Your task to perform on an android device: delete browsing data in the chrome app Image 0: 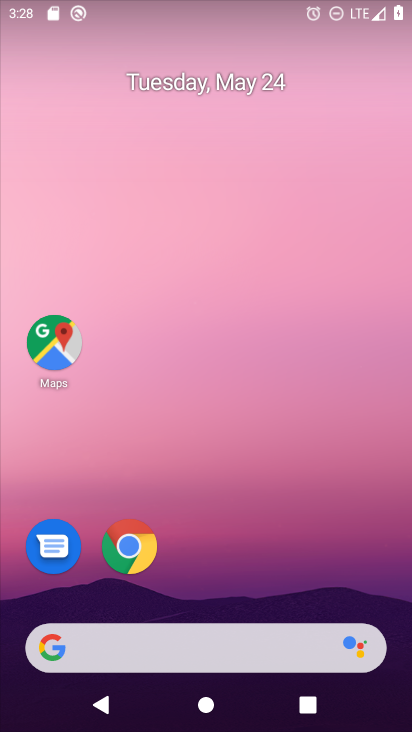
Step 0: drag from (175, 460) to (185, 169)
Your task to perform on an android device: delete browsing data in the chrome app Image 1: 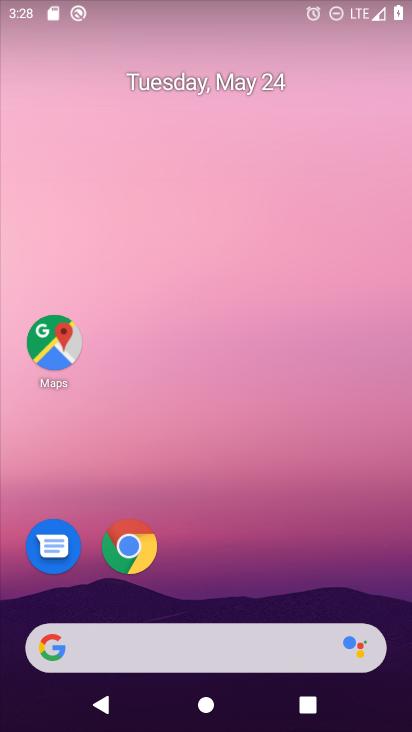
Step 1: drag from (237, 578) to (242, 106)
Your task to perform on an android device: delete browsing data in the chrome app Image 2: 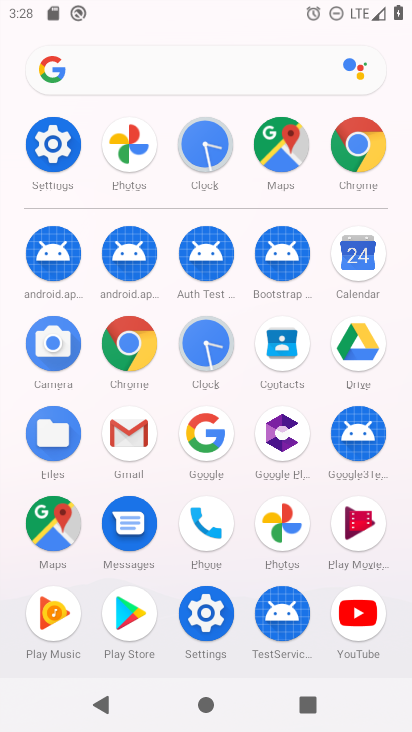
Step 2: click (135, 358)
Your task to perform on an android device: delete browsing data in the chrome app Image 3: 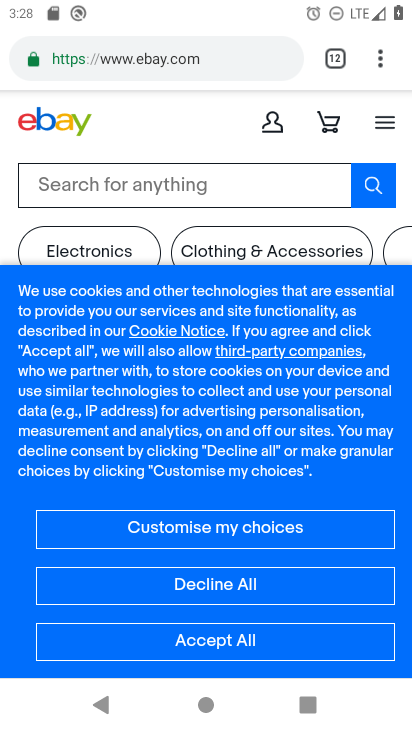
Step 3: drag from (380, 64) to (226, 341)
Your task to perform on an android device: delete browsing data in the chrome app Image 4: 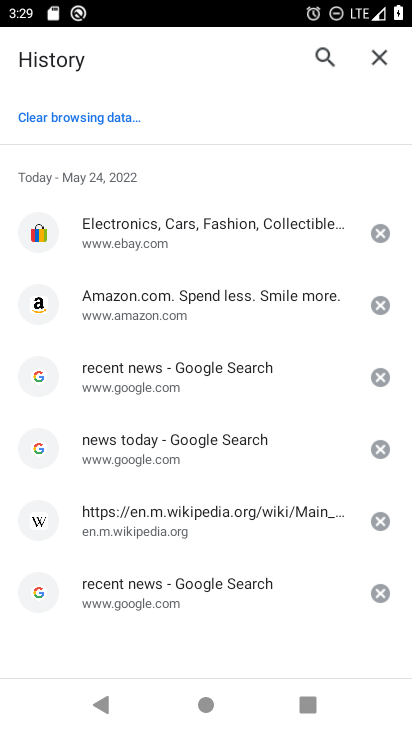
Step 4: click (73, 108)
Your task to perform on an android device: delete browsing data in the chrome app Image 5: 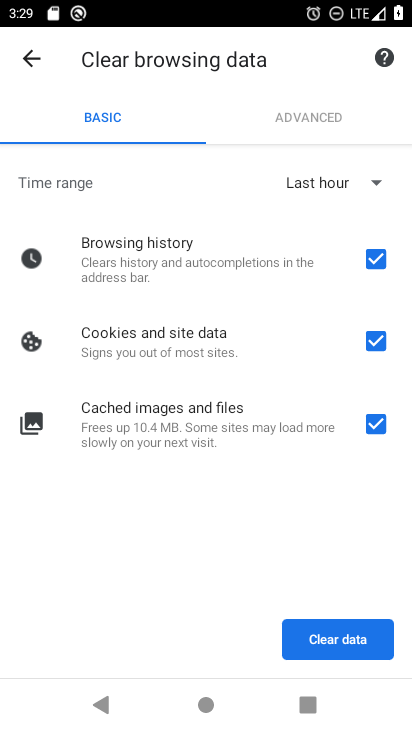
Step 5: click (319, 652)
Your task to perform on an android device: delete browsing data in the chrome app Image 6: 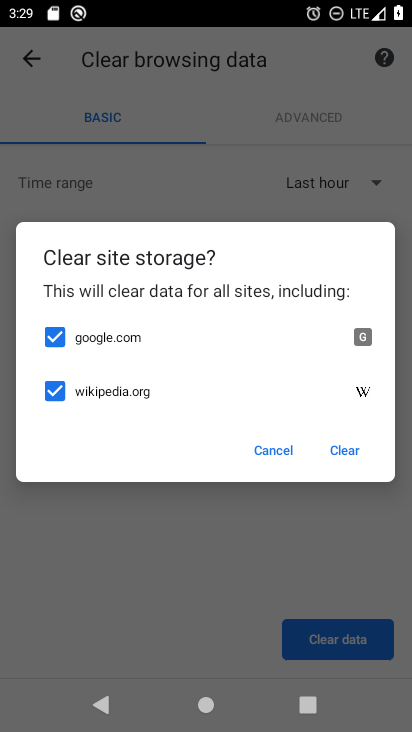
Step 6: click (345, 445)
Your task to perform on an android device: delete browsing data in the chrome app Image 7: 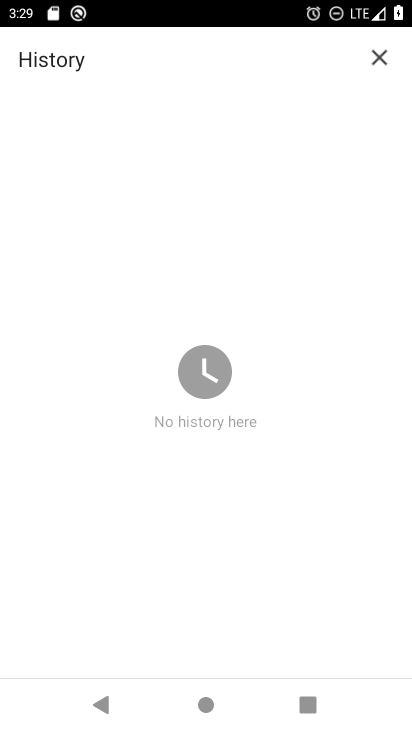
Step 7: task complete